Your task to perform on an android device: Open Amazon Image 0: 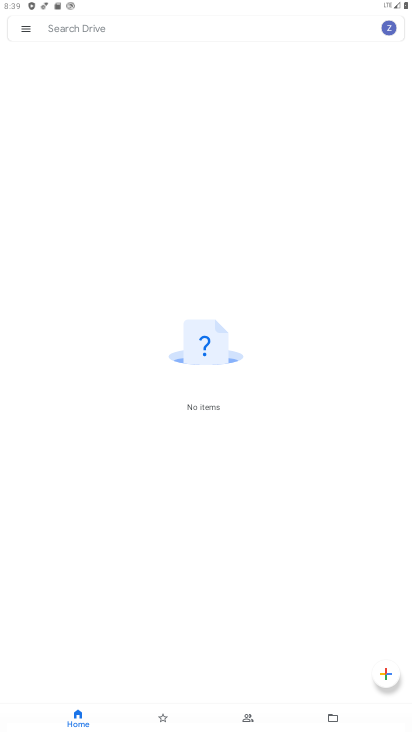
Step 0: press home button
Your task to perform on an android device: Open Amazon Image 1: 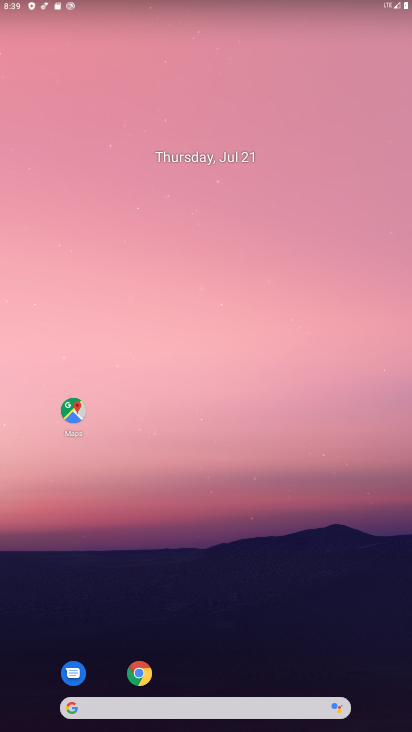
Step 1: click (136, 661)
Your task to perform on an android device: Open Amazon Image 2: 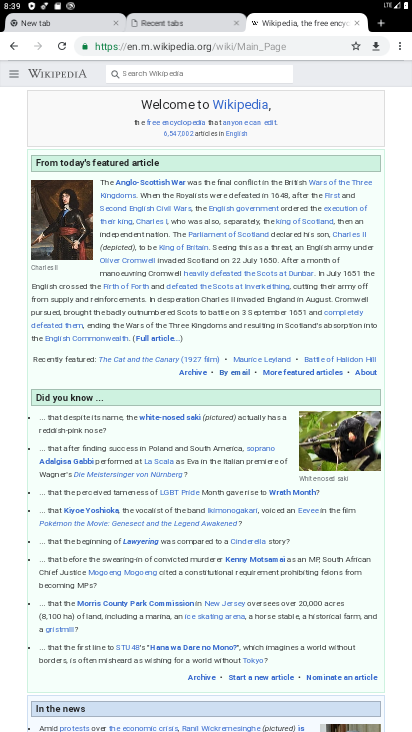
Step 2: click (380, 25)
Your task to perform on an android device: Open Amazon Image 3: 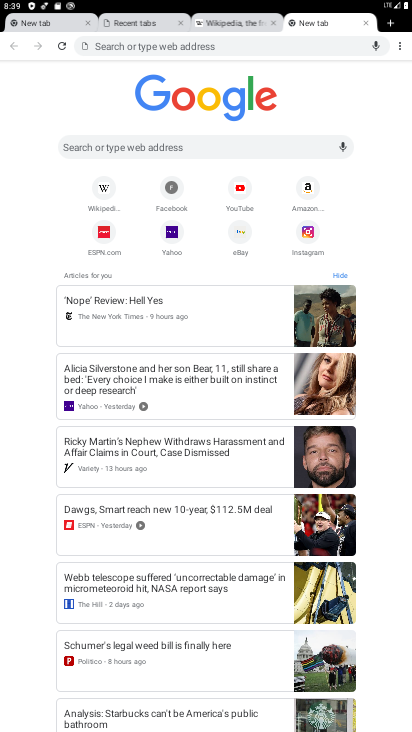
Step 3: click (308, 188)
Your task to perform on an android device: Open Amazon Image 4: 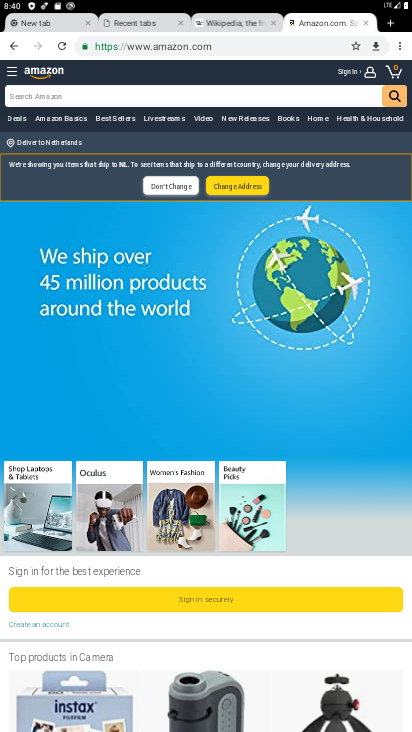
Step 4: task complete